Your task to perform on an android device: turn off location Image 0: 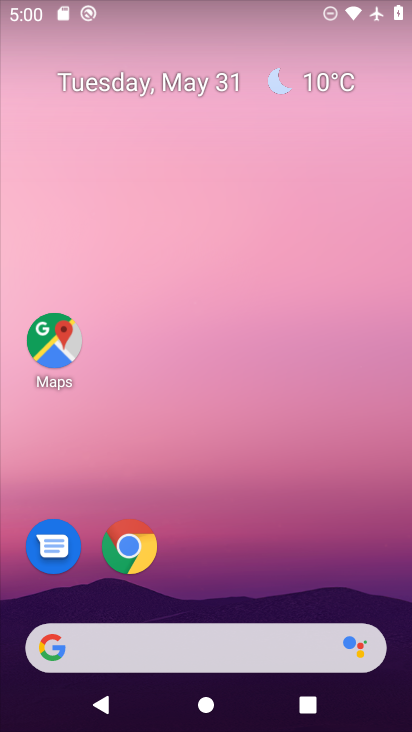
Step 0: click (150, 4)
Your task to perform on an android device: turn off location Image 1: 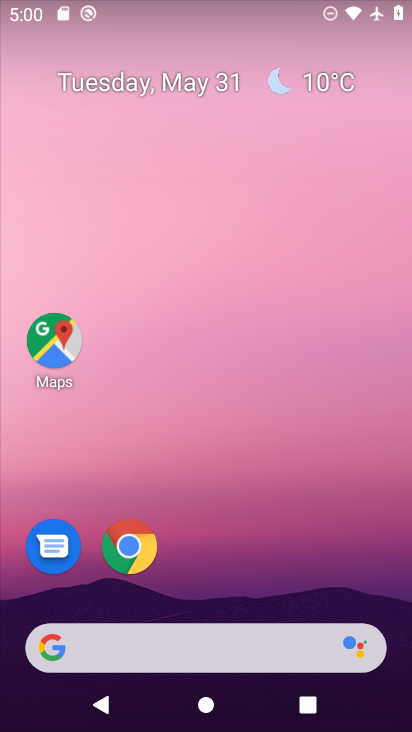
Step 1: drag from (286, 500) to (176, 27)
Your task to perform on an android device: turn off location Image 2: 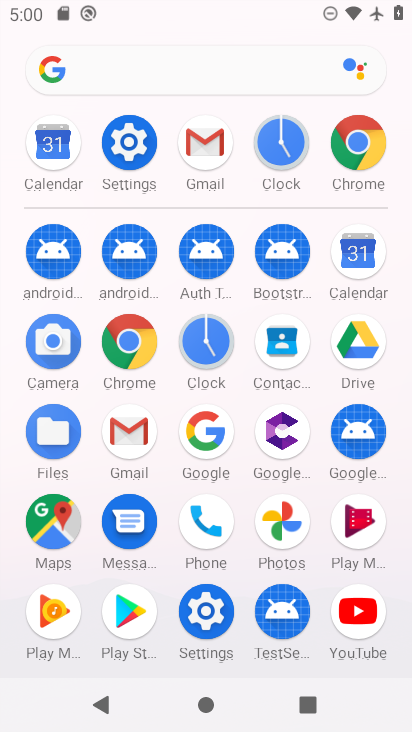
Step 2: click (146, 210)
Your task to perform on an android device: turn off location Image 3: 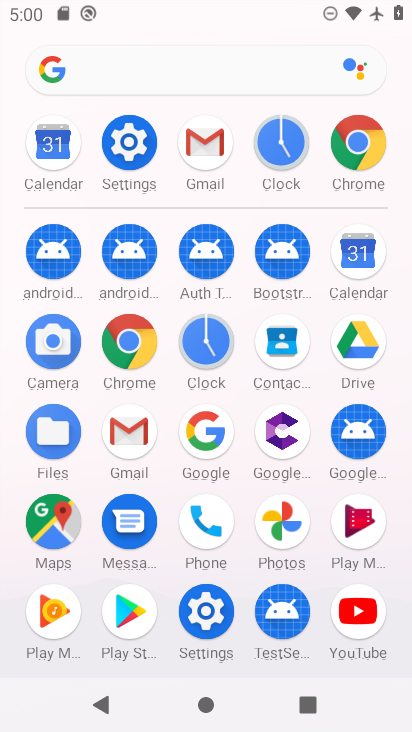
Step 3: click (141, 165)
Your task to perform on an android device: turn off location Image 4: 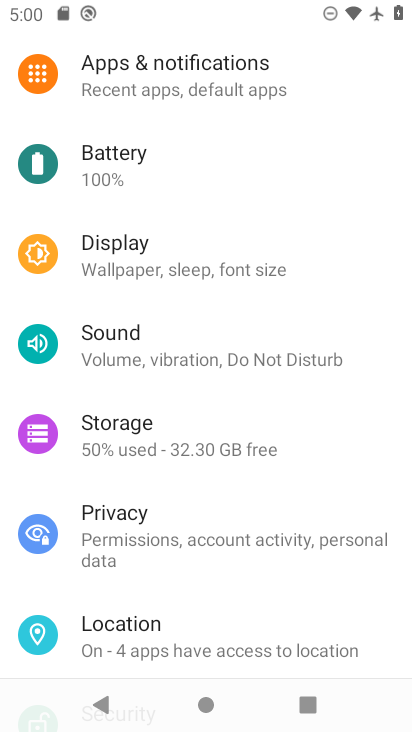
Step 4: drag from (273, 545) to (257, 344)
Your task to perform on an android device: turn off location Image 5: 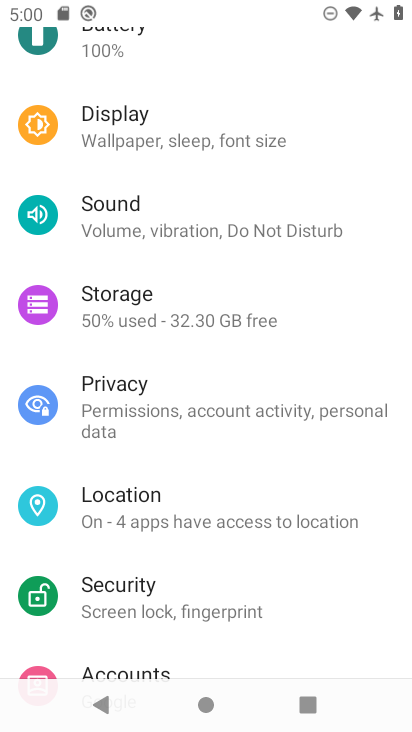
Step 5: click (183, 508)
Your task to perform on an android device: turn off location Image 6: 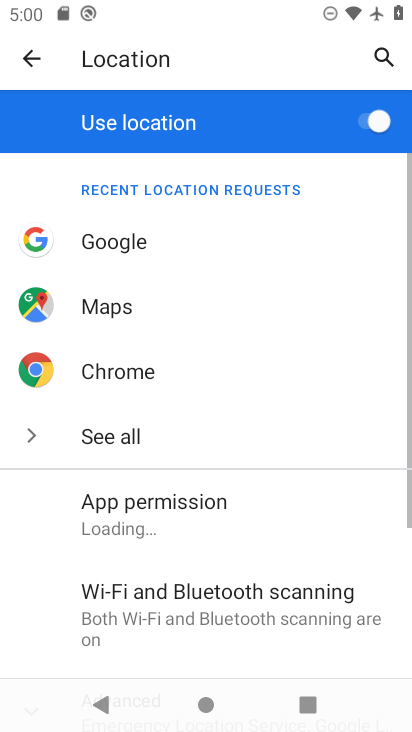
Step 6: click (366, 122)
Your task to perform on an android device: turn off location Image 7: 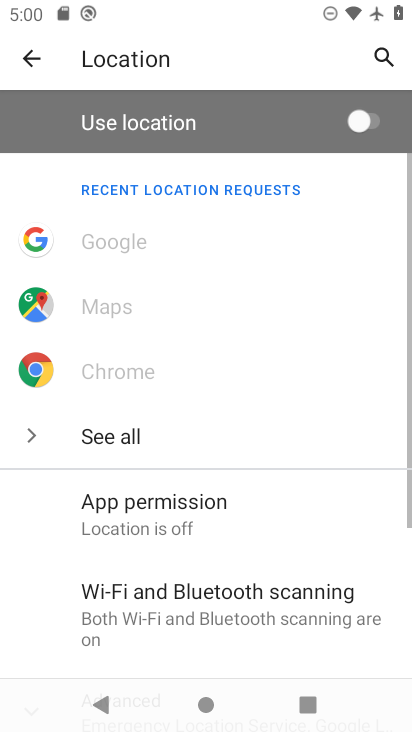
Step 7: task complete